Your task to perform on an android device: find which apps use the phone's location Image 0: 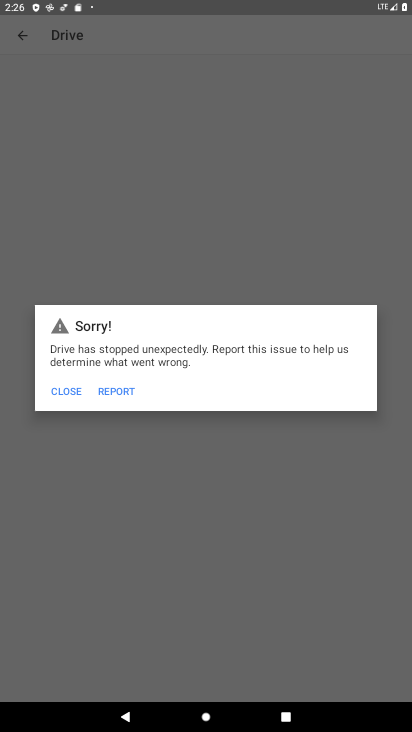
Step 0: press home button
Your task to perform on an android device: find which apps use the phone's location Image 1: 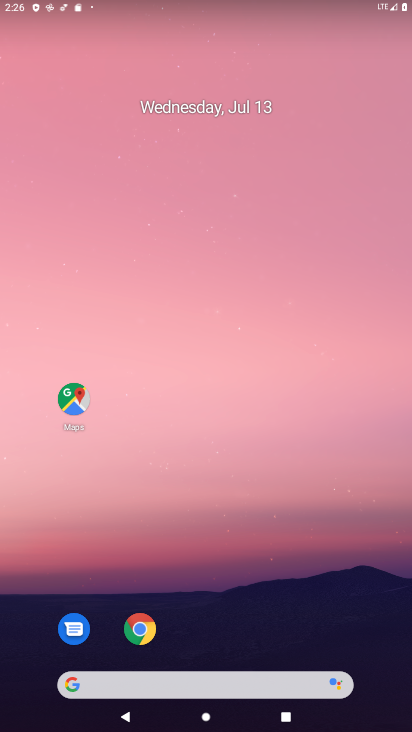
Step 1: drag from (251, 622) to (310, 74)
Your task to perform on an android device: find which apps use the phone's location Image 2: 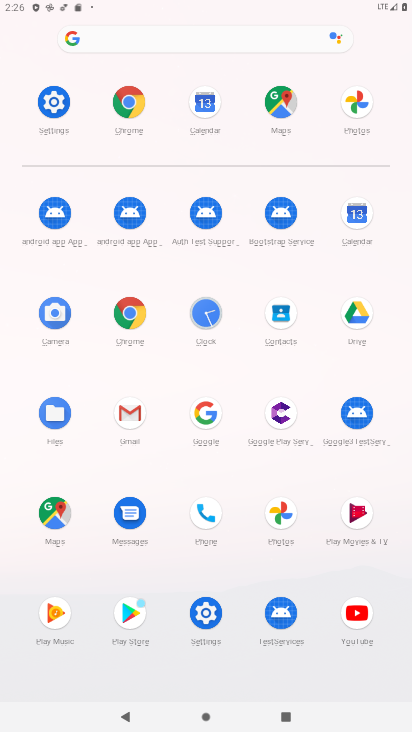
Step 2: click (46, 122)
Your task to perform on an android device: find which apps use the phone's location Image 3: 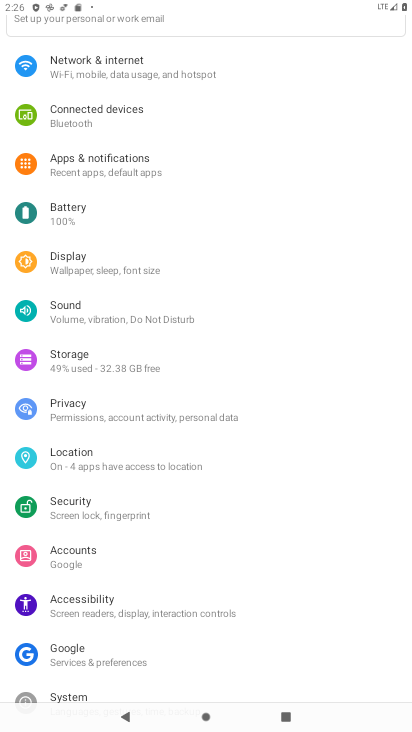
Step 3: click (85, 447)
Your task to perform on an android device: find which apps use the phone's location Image 4: 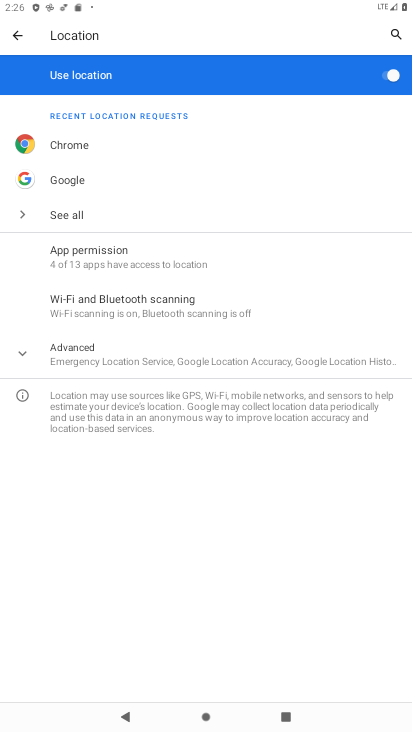
Step 4: click (187, 221)
Your task to perform on an android device: find which apps use the phone's location Image 5: 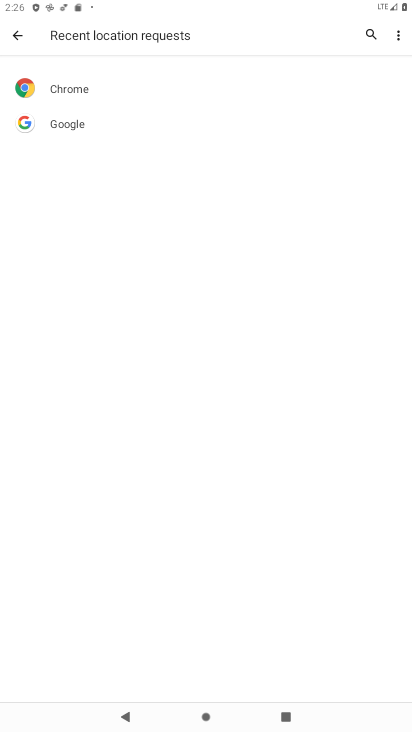
Step 5: task complete